Your task to perform on an android device: turn smart compose on in the gmail app Image 0: 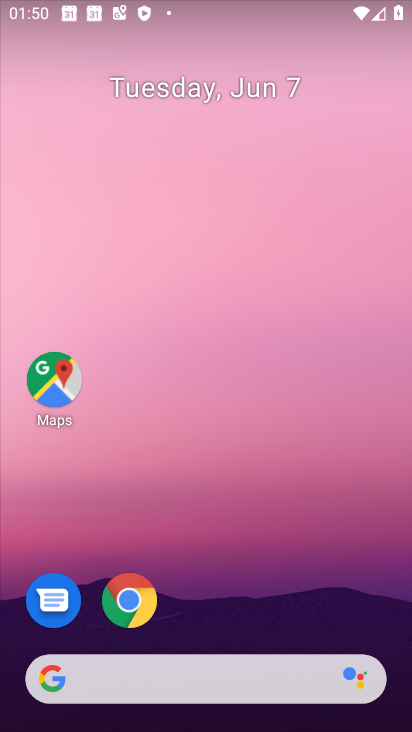
Step 0: drag from (183, 713) to (168, 40)
Your task to perform on an android device: turn smart compose on in the gmail app Image 1: 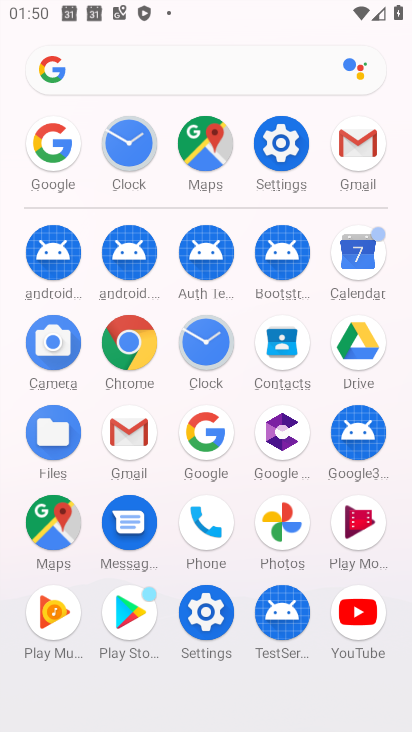
Step 1: click (132, 434)
Your task to perform on an android device: turn smart compose on in the gmail app Image 2: 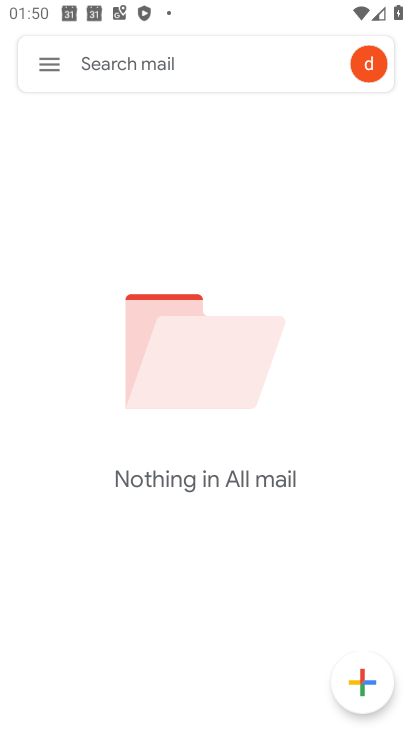
Step 2: click (51, 63)
Your task to perform on an android device: turn smart compose on in the gmail app Image 3: 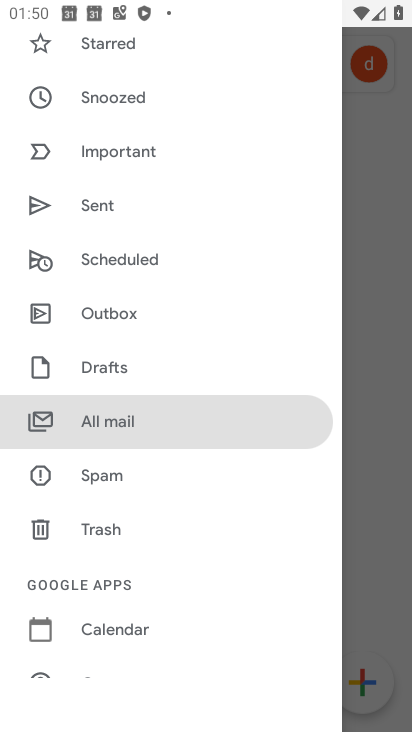
Step 3: drag from (121, 646) to (103, 239)
Your task to perform on an android device: turn smart compose on in the gmail app Image 4: 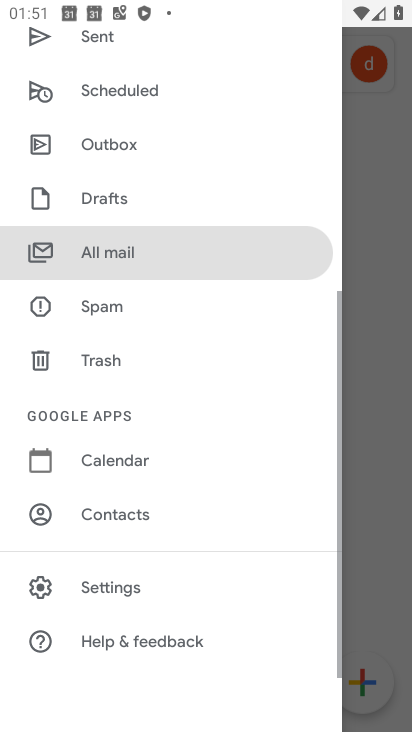
Step 4: click (108, 580)
Your task to perform on an android device: turn smart compose on in the gmail app Image 5: 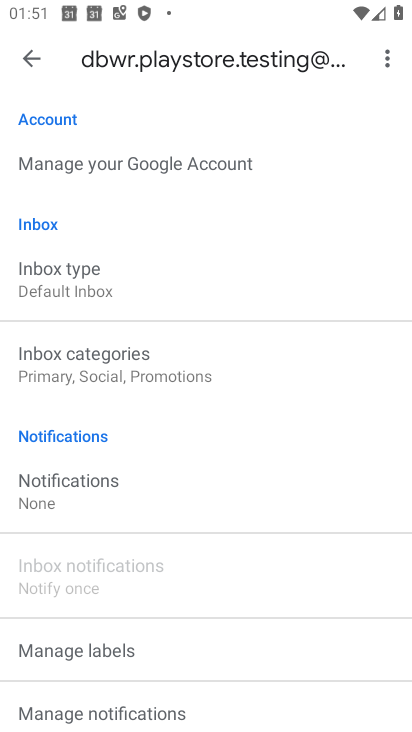
Step 5: drag from (155, 674) to (157, 217)
Your task to perform on an android device: turn smart compose on in the gmail app Image 6: 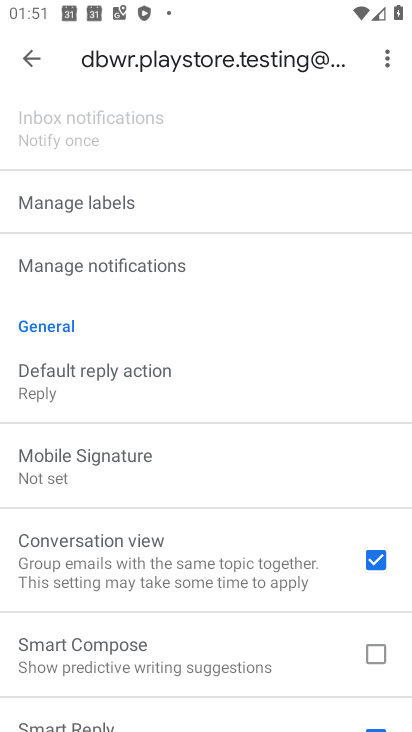
Step 6: drag from (194, 685) to (200, 433)
Your task to perform on an android device: turn smart compose on in the gmail app Image 7: 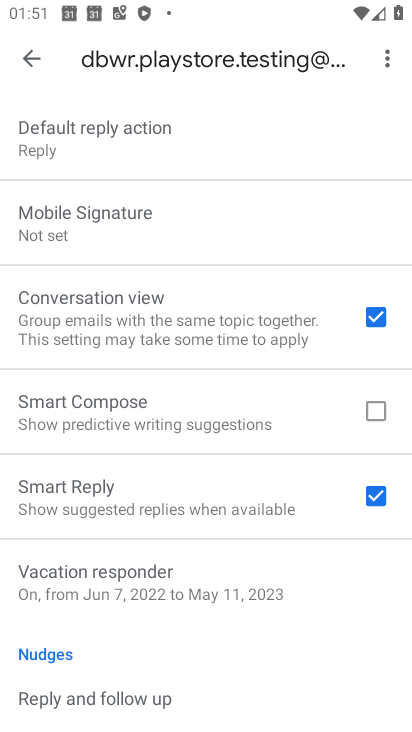
Step 7: click (373, 405)
Your task to perform on an android device: turn smart compose on in the gmail app Image 8: 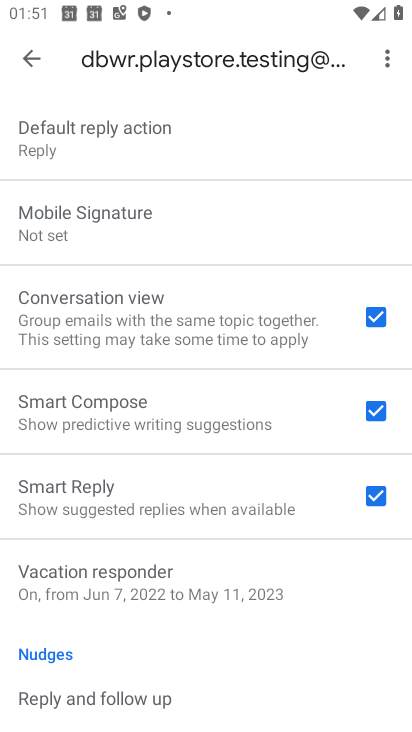
Step 8: task complete